Your task to perform on an android device: create a new album in the google photos Image 0: 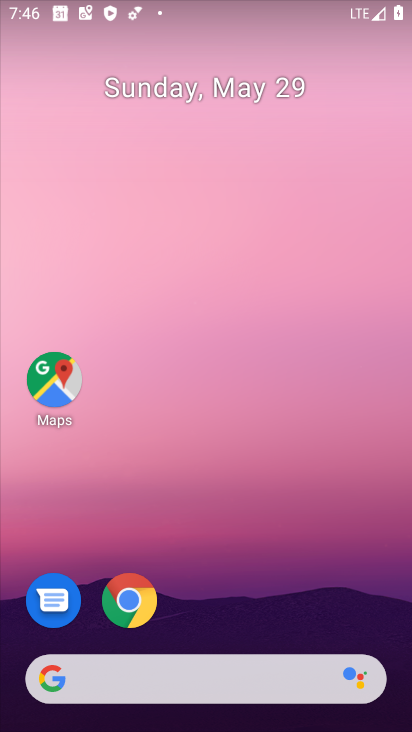
Step 0: drag from (231, 621) to (280, 254)
Your task to perform on an android device: create a new album in the google photos Image 1: 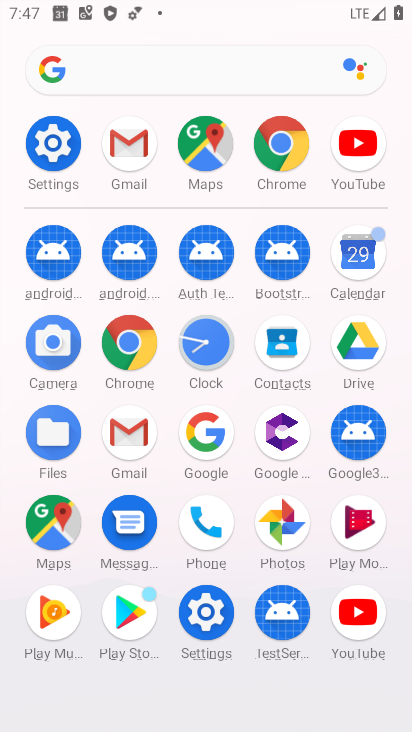
Step 1: click (286, 529)
Your task to perform on an android device: create a new album in the google photos Image 2: 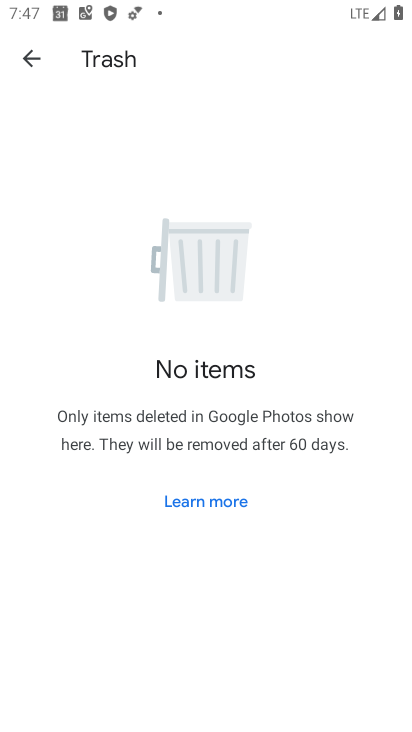
Step 2: click (28, 52)
Your task to perform on an android device: create a new album in the google photos Image 3: 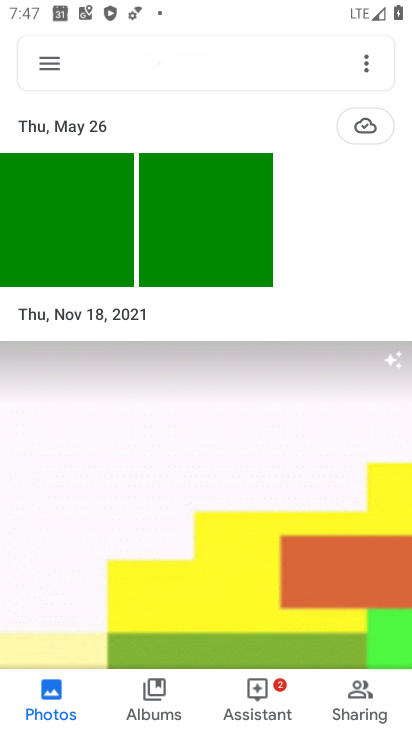
Step 3: click (154, 708)
Your task to perform on an android device: create a new album in the google photos Image 4: 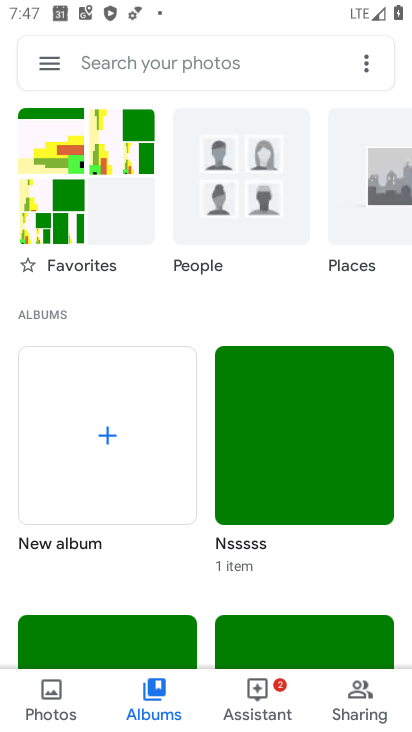
Step 4: click (110, 425)
Your task to perform on an android device: create a new album in the google photos Image 5: 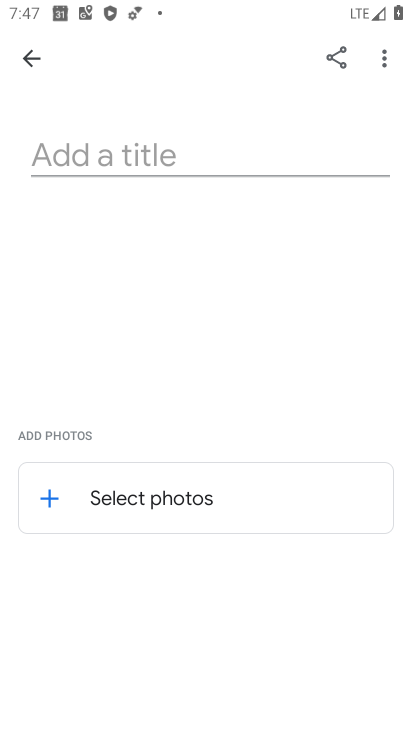
Step 5: click (170, 153)
Your task to perform on an android device: create a new album in the google photos Image 6: 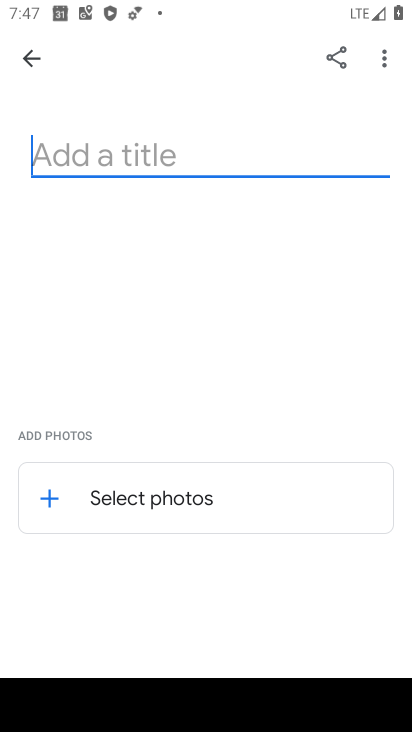
Step 6: type "flushed"
Your task to perform on an android device: create a new album in the google photos Image 7: 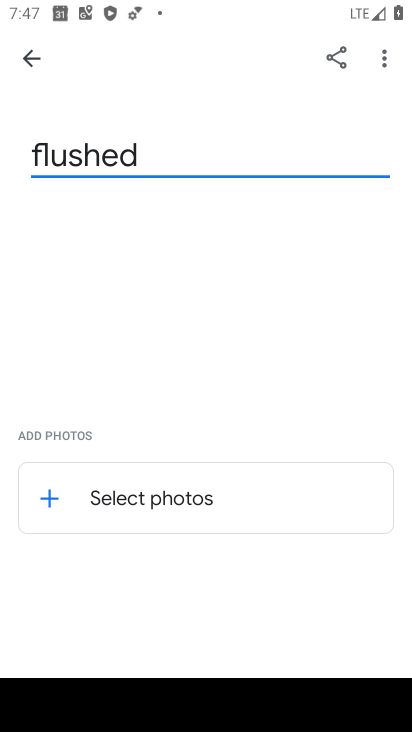
Step 7: click (45, 492)
Your task to perform on an android device: create a new album in the google photos Image 8: 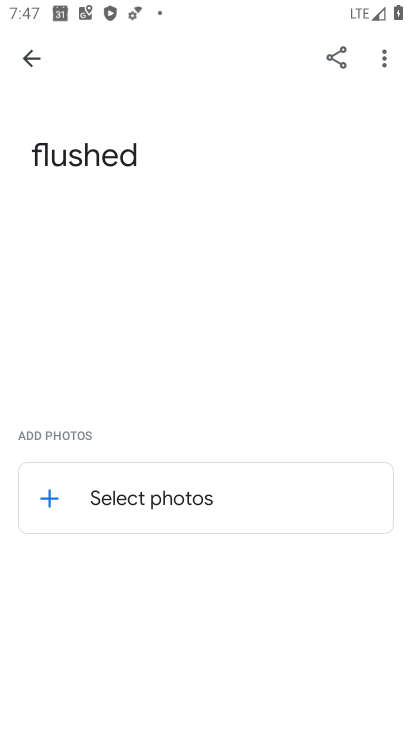
Step 8: click (45, 492)
Your task to perform on an android device: create a new album in the google photos Image 9: 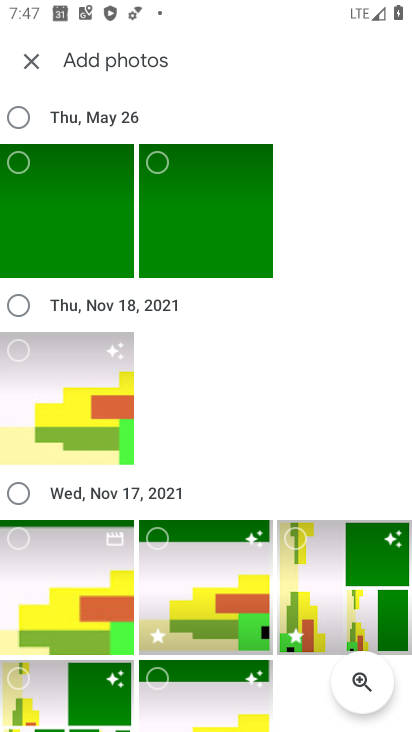
Step 9: click (27, 353)
Your task to perform on an android device: create a new album in the google photos Image 10: 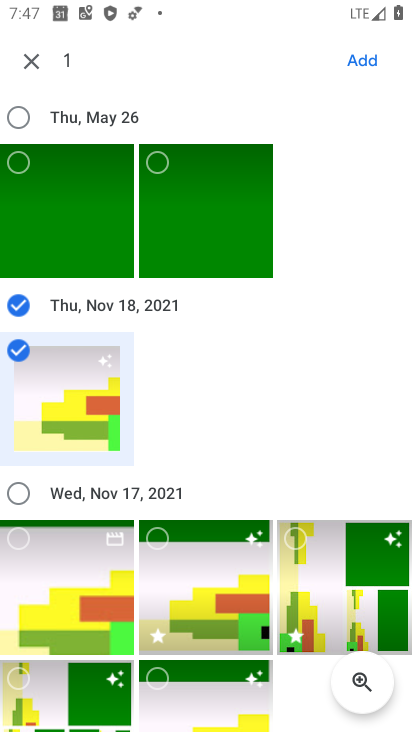
Step 10: click (50, 166)
Your task to perform on an android device: create a new album in the google photos Image 11: 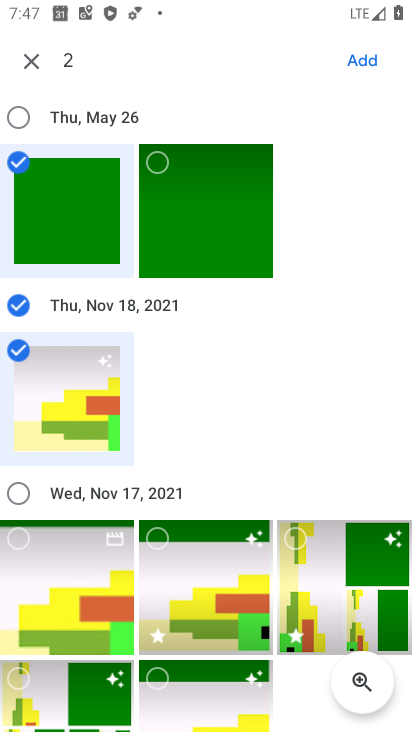
Step 11: click (321, 552)
Your task to perform on an android device: create a new album in the google photos Image 12: 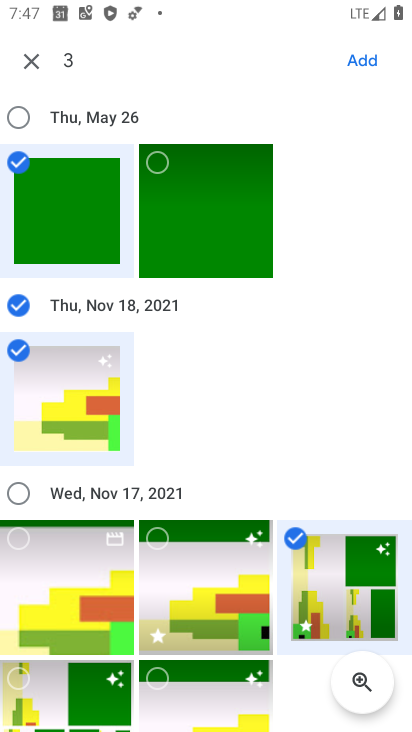
Step 12: click (148, 616)
Your task to perform on an android device: create a new album in the google photos Image 13: 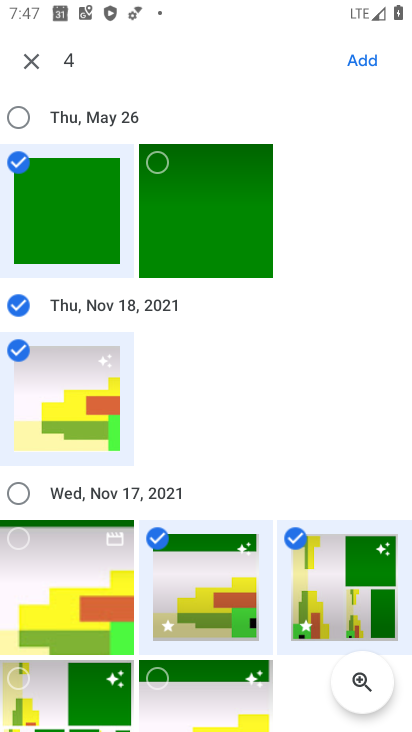
Step 13: click (352, 61)
Your task to perform on an android device: create a new album in the google photos Image 14: 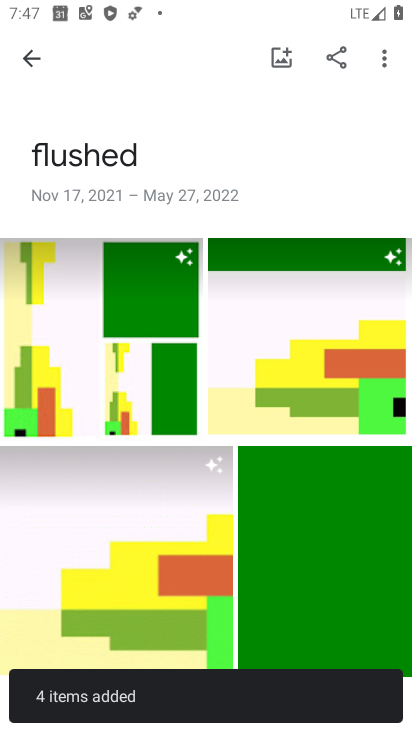
Step 14: task complete